Your task to perform on an android device: see sites visited before in the chrome app Image 0: 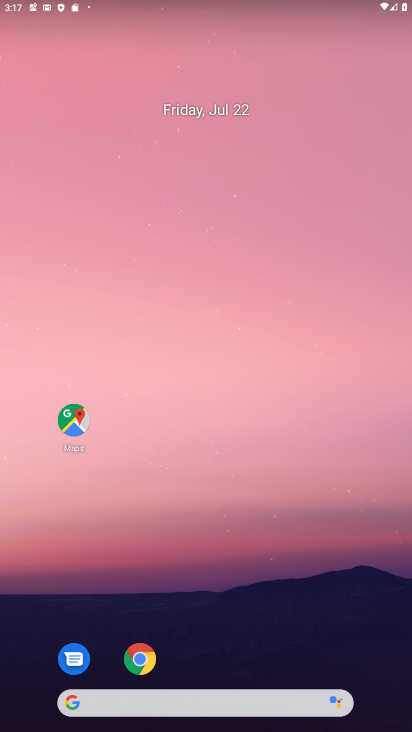
Step 0: click (125, 627)
Your task to perform on an android device: see sites visited before in the chrome app Image 1: 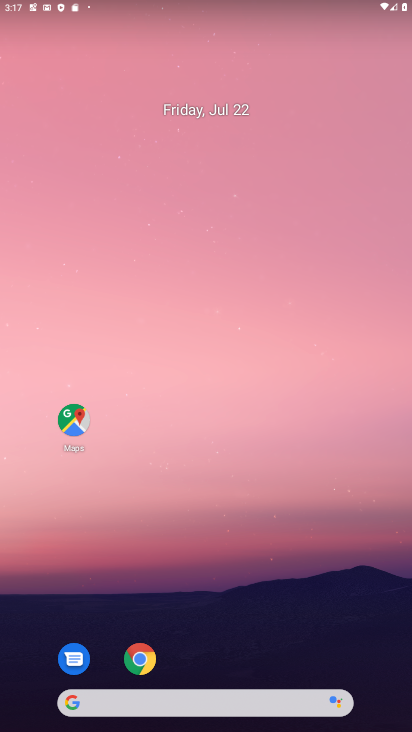
Step 1: click (139, 654)
Your task to perform on an android device: see sites visited before in the chrome app Image 2: 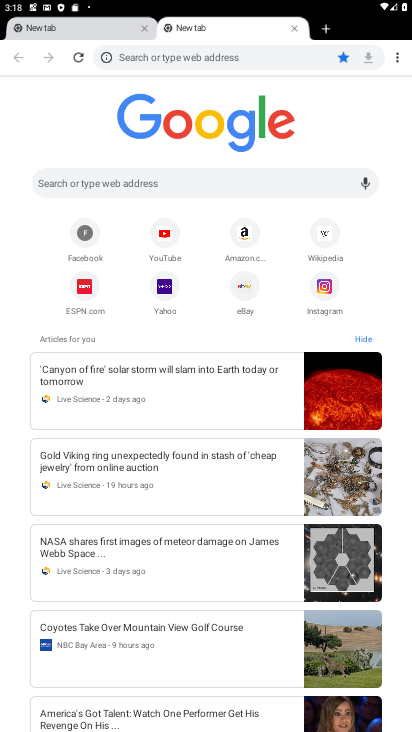
Step 2: click (400, 54)
Your task to perform on an android device: see sites visited before in the chrome app Image 3: 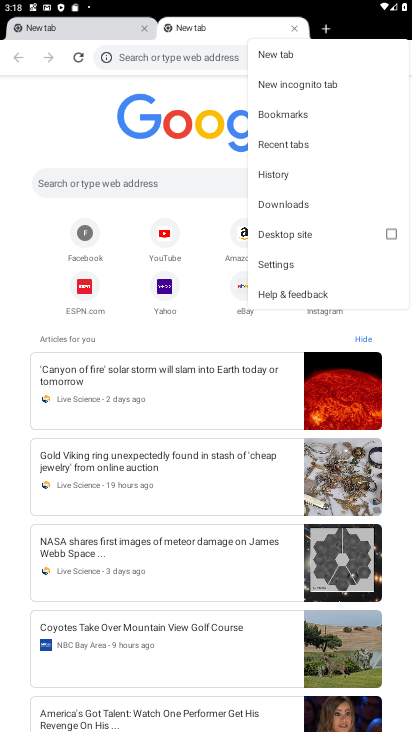
Step 3: click (303, 157)
Your task to perform on an android device: see sites visited before in the chrome app Image 4: 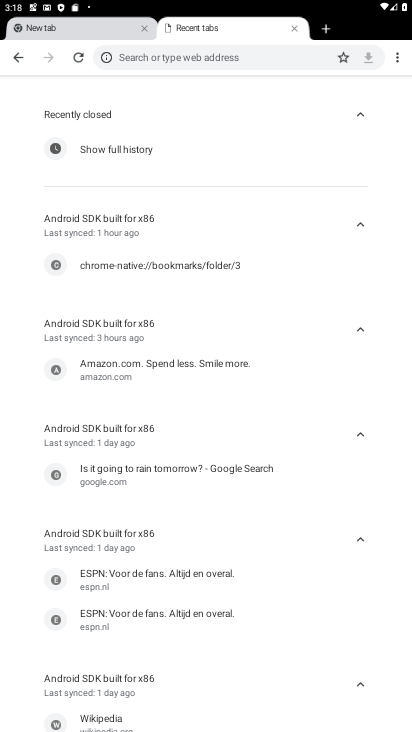
Step 4: task complete